Your task to perform on an android device: turn on improve location accuracy Image 0: 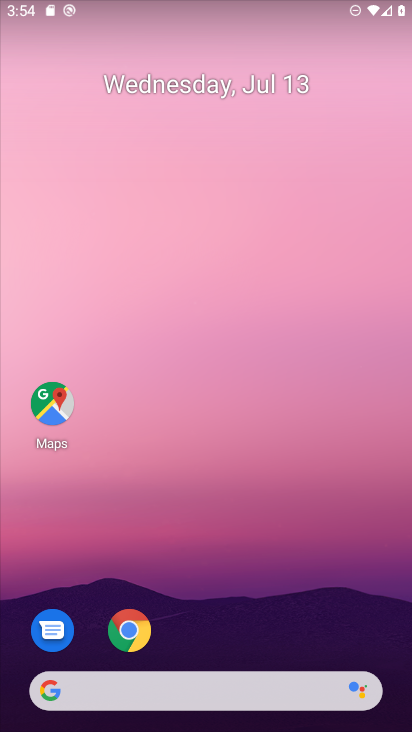
Step 0: drag from (194, 457) to (174, 152)
Your task to perform on an android device: turn on improve location accuracy Image 1: 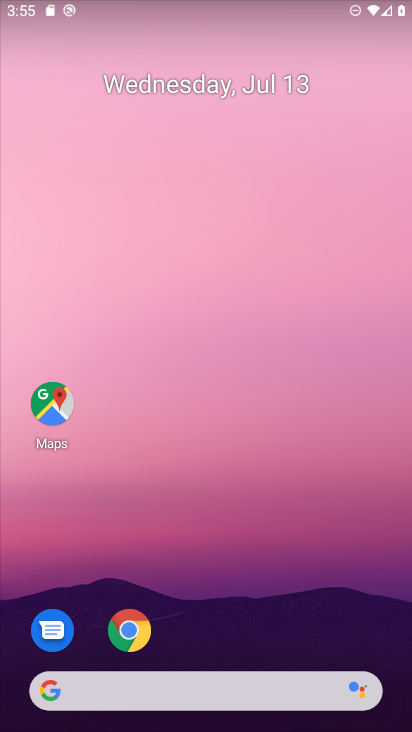
Step 1: drag from (196, 597) to (126, 99)
Your task to perform on an android device: turn on improve location accuracy Image 2: 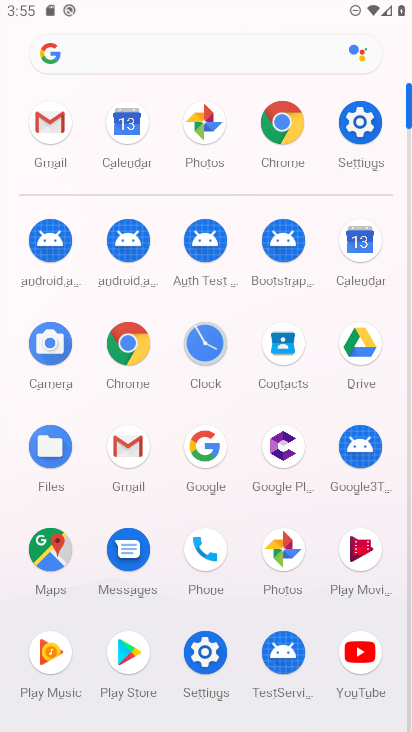
Step 2: click (356, 129)
Your task to perform on an android device: turn on improve location accuracy Image 3: 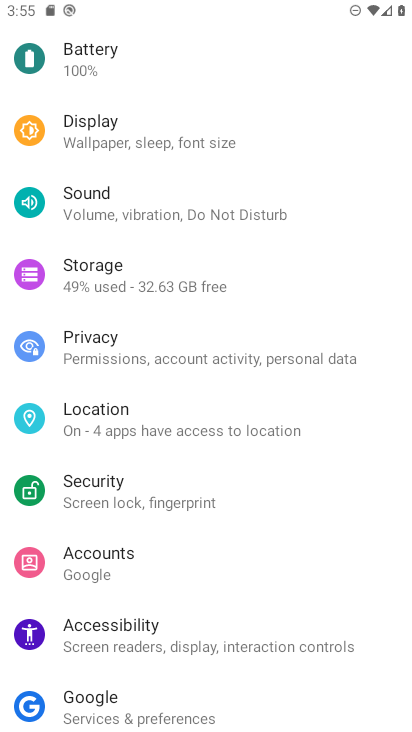
Step 3: click (96, 418)
Your task to perform on an android device: turn on improve location accuracy Image 4: 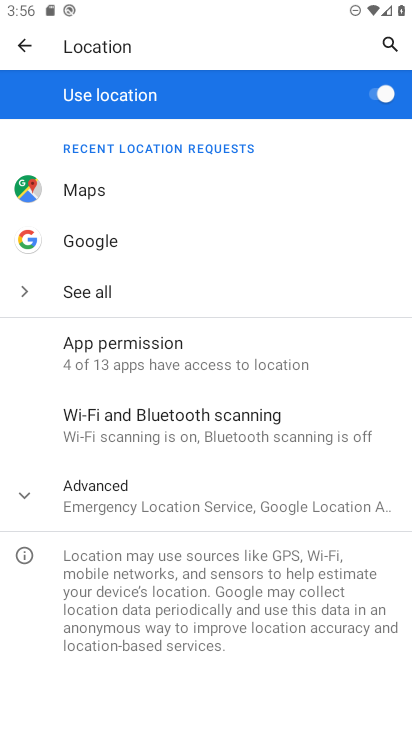
Step 4: click (143, 498)
Your task to perform on an android device: turn on improve location accuracy Image 5: 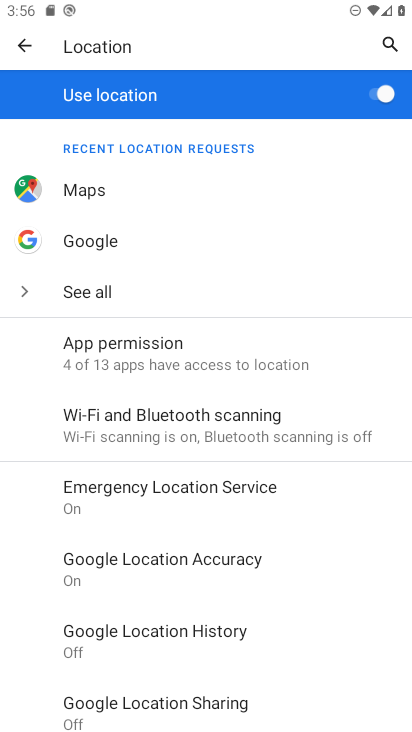
Step 5: click (208, 568)
Your task to perform on an android device: turn on improve location accuracy Image 6: 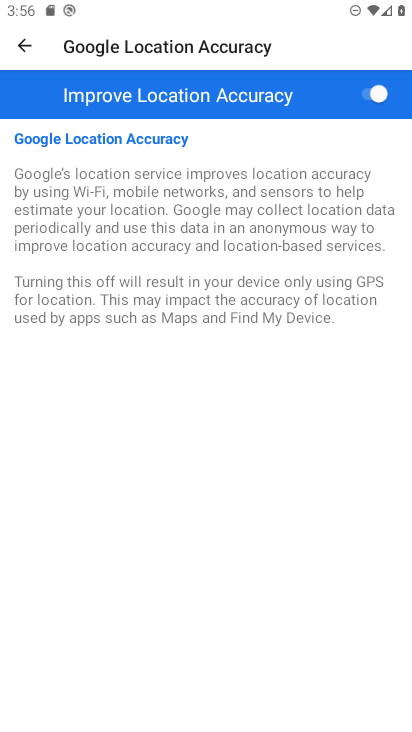
Step 6: task complete